Your task to perform on an android device: Open calendar and show me the third week of next month Image 0: 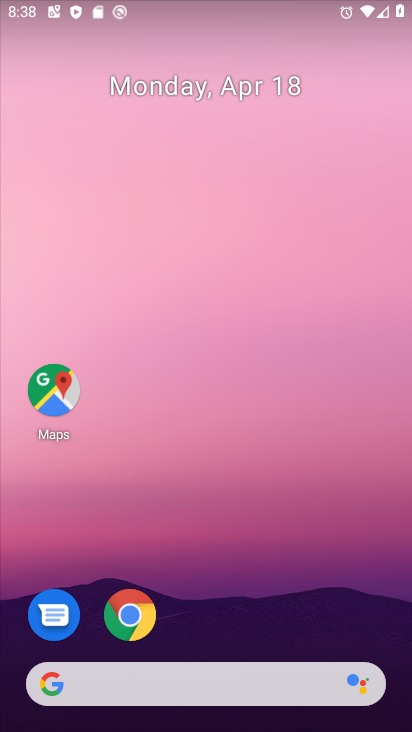
Step 0: drag from (295, 536) to (301, 100)
Your task to perform on an android device: Open calendar and show me the third week of next month Image 1: 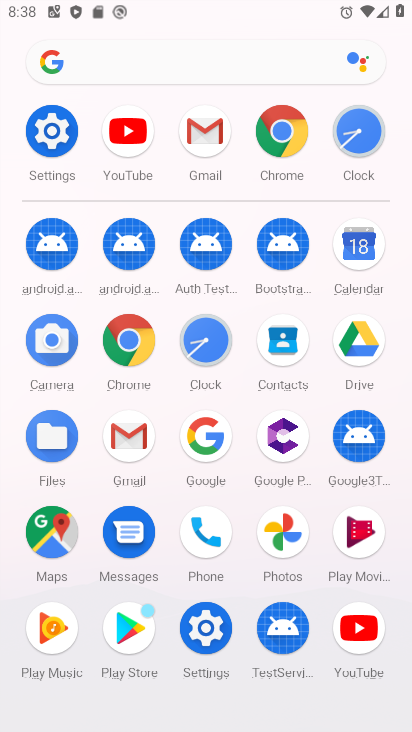
Step 1: click (355, 250)
Your task to perform on an android device: Open calendar and show me the third week of next month Image 2: 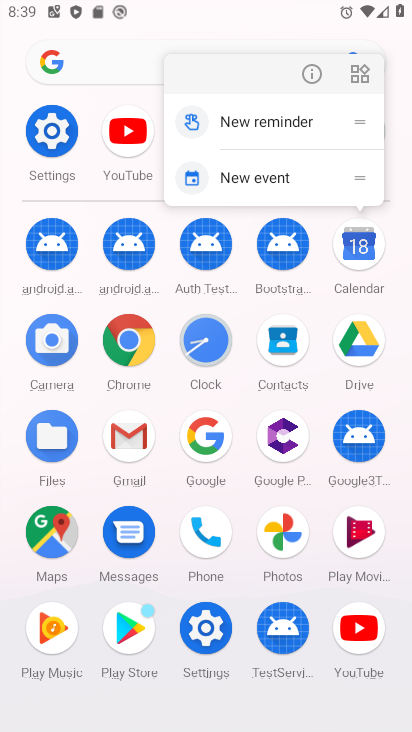
Step 2: click (355, 248)
Your task to perform on an android device: Open calendar and show me the third week of next month Image 3: 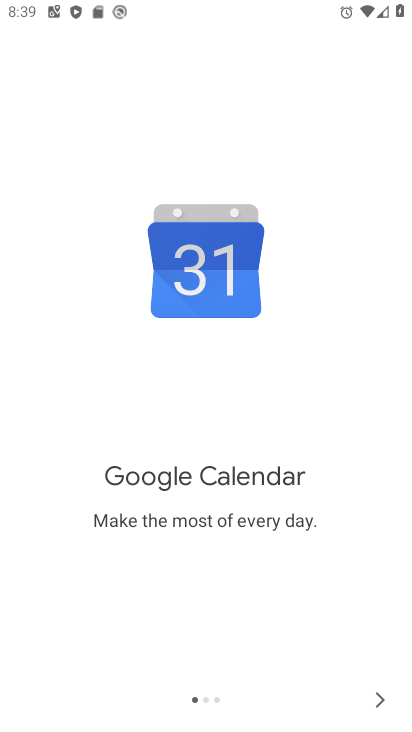
Step 3: click (380, 696)
Your task to perform on an android device: Open calendar and show me the third week of next month Image 4: 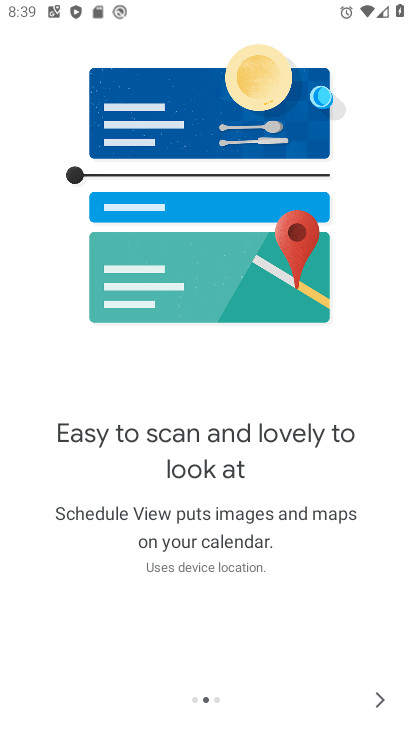
Step 4: click (374, 695)
Your task to perform on an android device: Open calendar and show me the third week of next month Image 5: 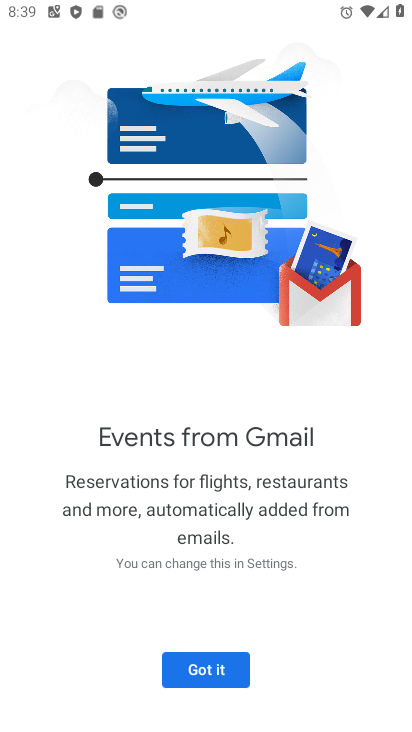
Step 5: click (238, 672)
Your task to perform on an android device: Open calendar and show me the third week of next month Image 6: 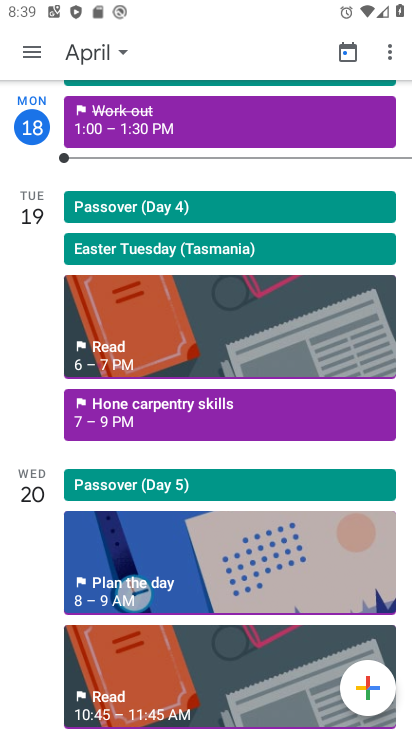
Step 6: click (32, 52)
Your task to perform on an android device: Open calendar and show me the third week of next month Image 7: 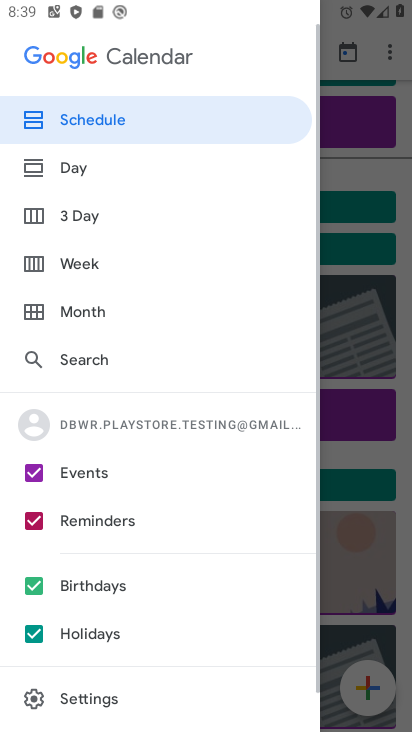
Step 7: click (75, 262)
Your task to perform on an android device: Open calendar and show me the third week of next month Image 8: 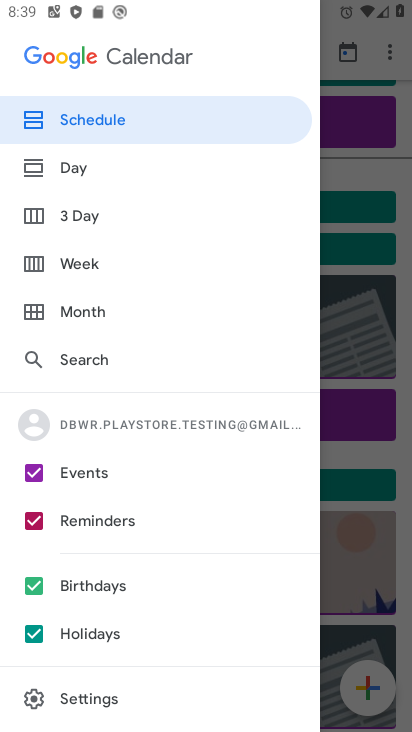
Step 8: click (78, 262)
Your task to perform on an android device: Open calendar and show me the third week of next month Image 9: 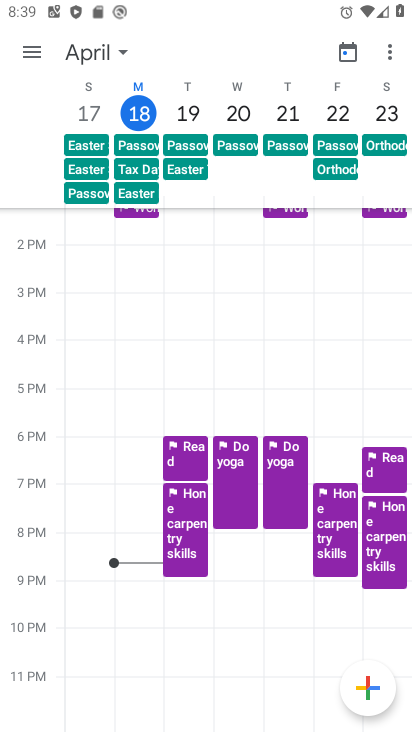
Step 9: task complete